Your task to perform on an android device: Open network settings Image 0: 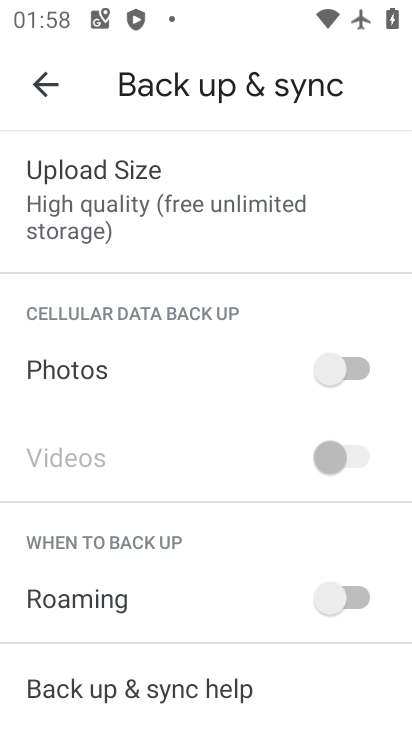
Step 0: press home button
Your task to perform on an android device: Open network settings Image 1: 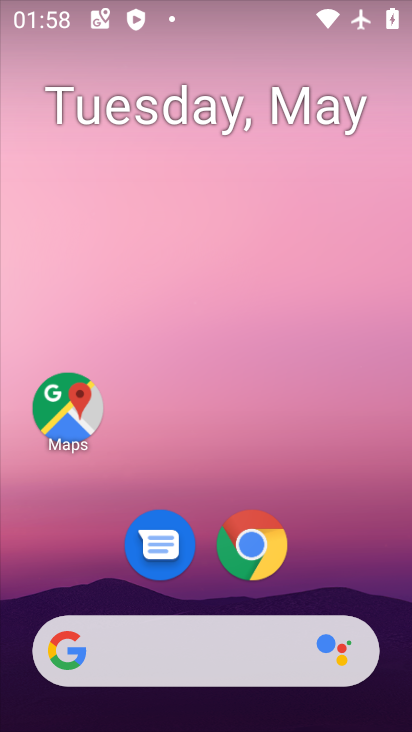
Step 1: drag from (393, 616) to (286, 129)
Your task to perform on an android device: Open network settings Image 2: 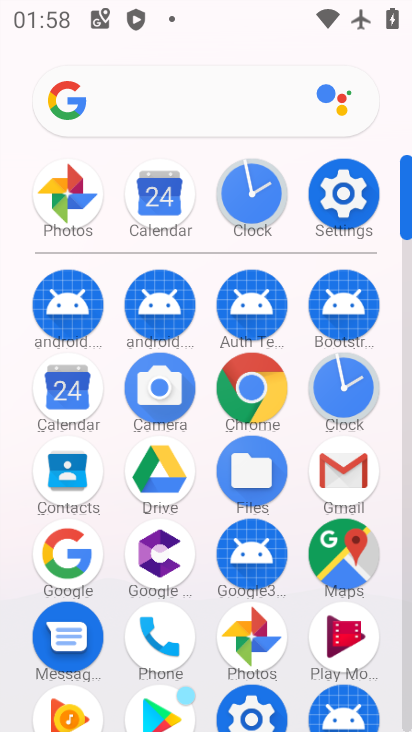
Step 2: click (407, 699)
Your task to perform on an android device: Open network settings Image 3: 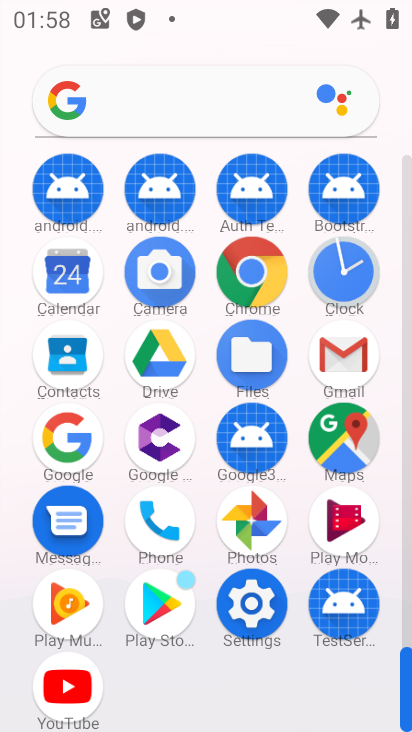
Step 3: click (249, 602)
Your task to perform on an android device: Open network settings Image 4: 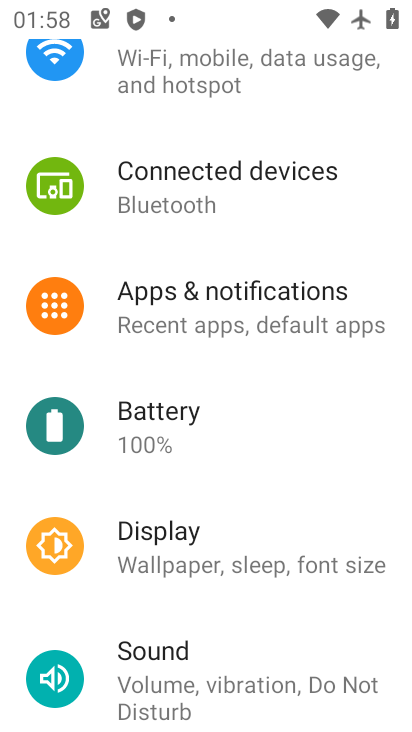
Step 4: click (186, 76)
Your task to perform on an android device: Open network settings Image 5: 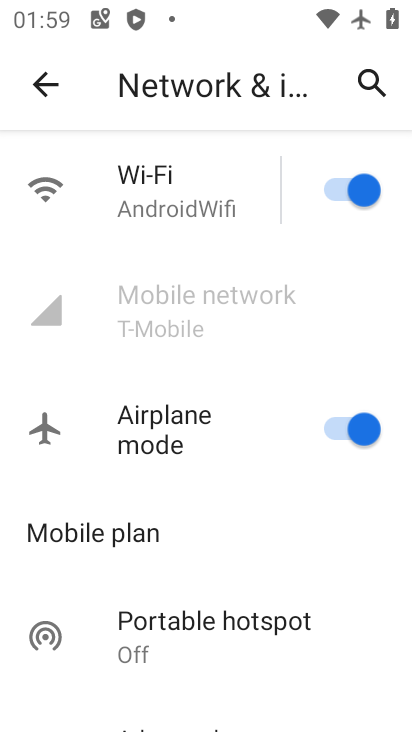
Step 5: click (331, 428)
Your task to perform on an android device: Open network settings Image 6: 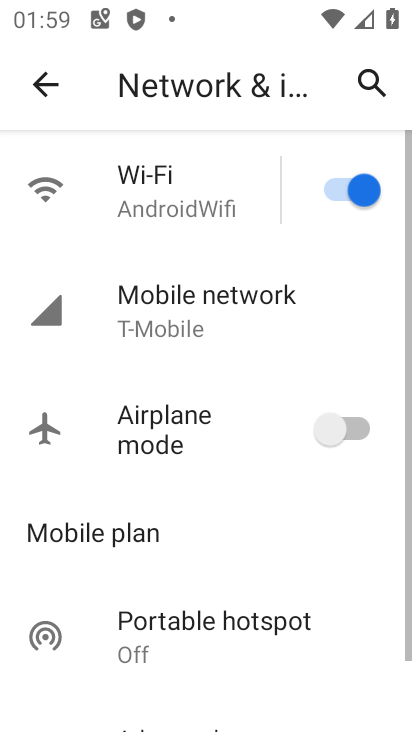
Step 6: click (188, 300)
Your task to perform on an android device: Open network settings Image 7: 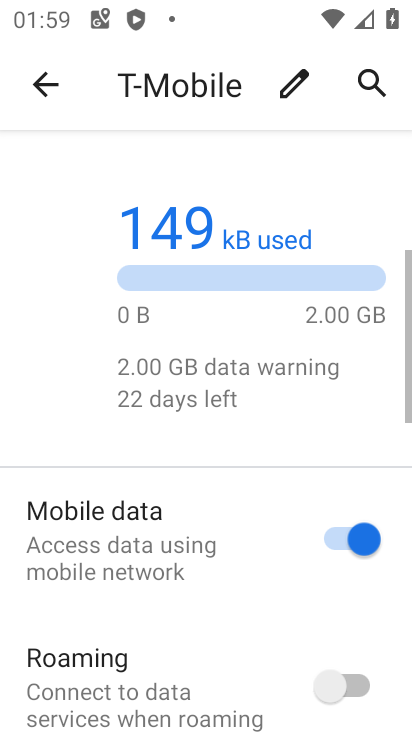
Step 7: drag from (210, 602) to (216, 258)
Your task to perform on an android device: Open network settings Image 8: 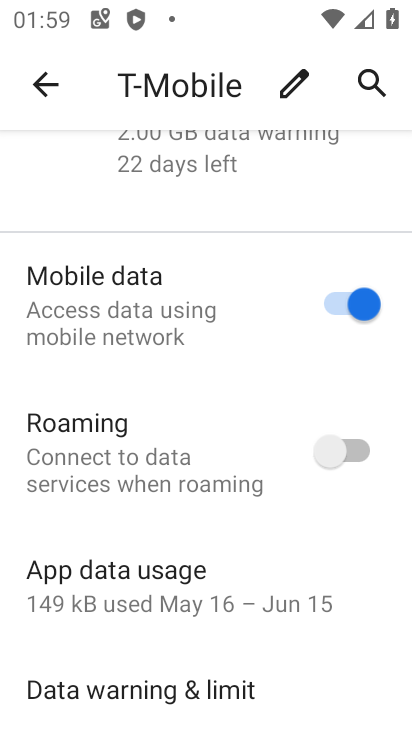
Step 8: drag from (287, 618) to (260, 218)
Your task to perform on an android device: Open network settings Image 9: 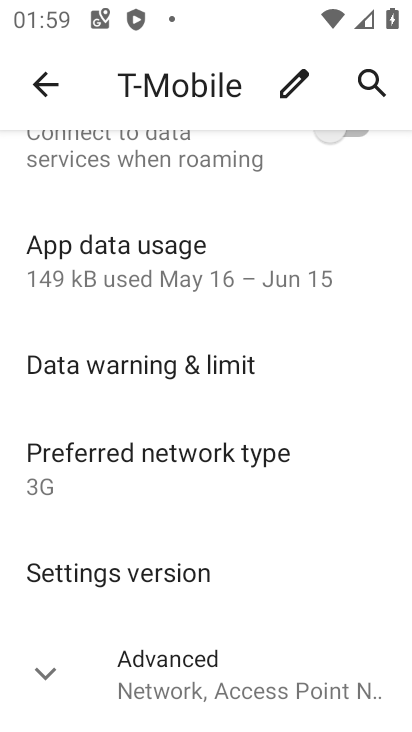
Step 9: click (43, 677)
Your task to perform on an android device: Open network settings Image 10: 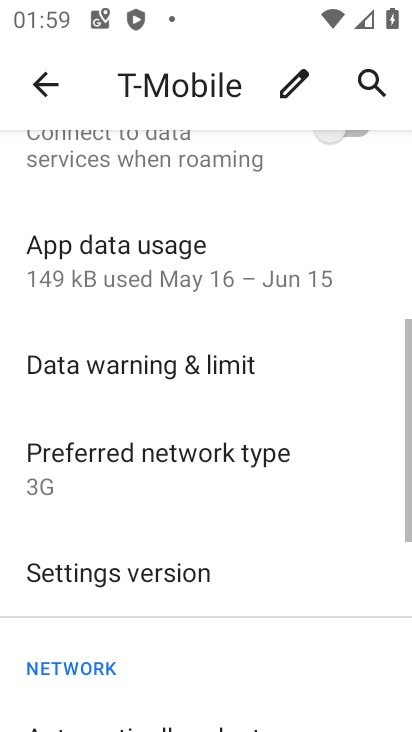
Step 10: task complete